Your task to perform on an android device: toggle sleep mode Image 0: 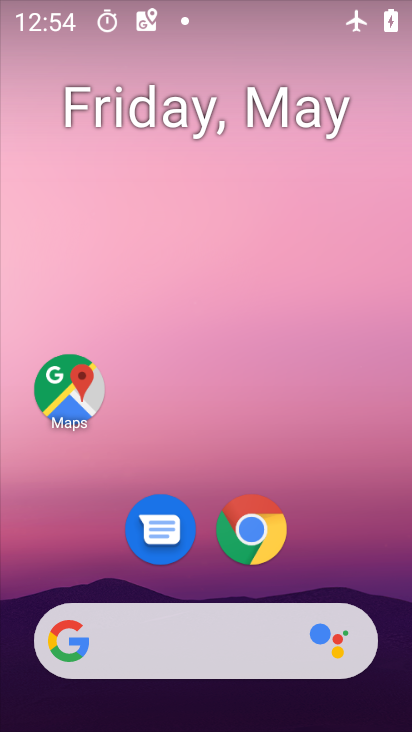
Step 0: drag from (258, 628) to (294, 163)
Your task to perform on an android device: toggle sleep mode Image 1: 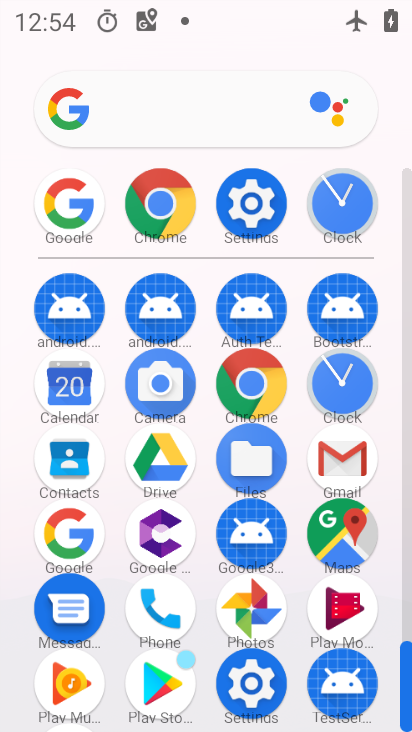
Step 1: click (263, 214)
Your task to perform on an android device: toggle sleep mode Image 2: 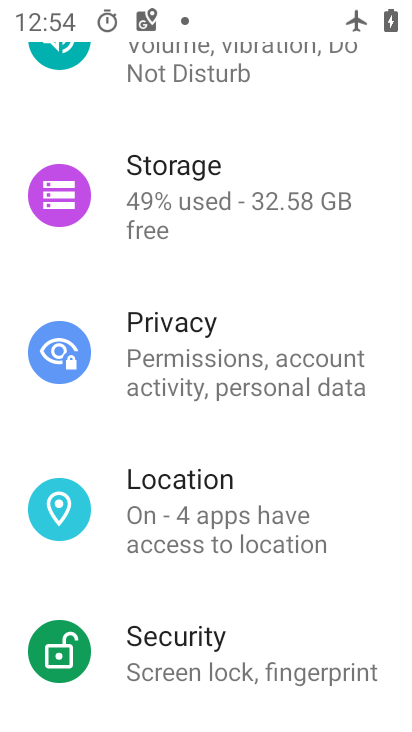
Step 2: drag from (127, 305) to (97, 694)
Your task to perform on an android device: toggle sleep mode Image 3: 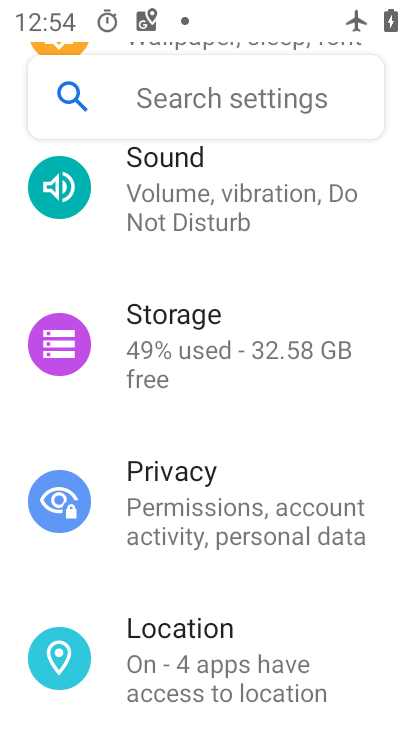
Step 3: drag from (190, 395) to (217, 730)
Your task to perform on an android device: toggle sleep mode Image 4: 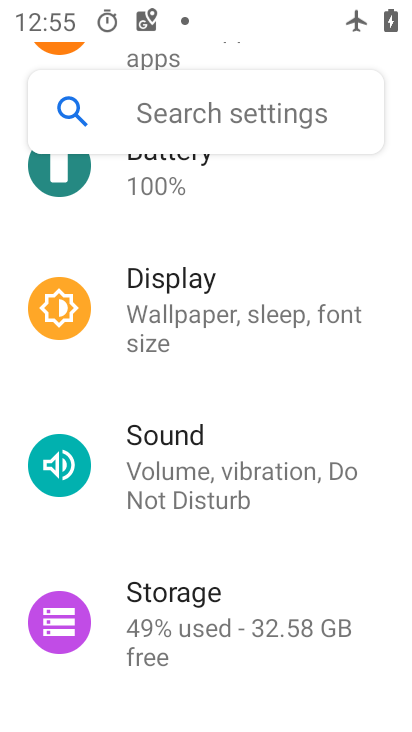
Step 4: drag from (283, 290) to (233, 725)
Your task to perform on an android device: toggle sleep mode Image 5: 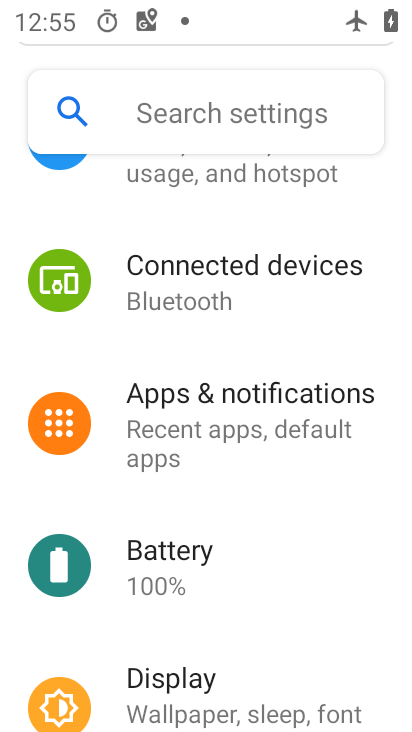
Step 5: click (202, 695)
Your task to perform on an android device: toggle sleep mode Image 6: 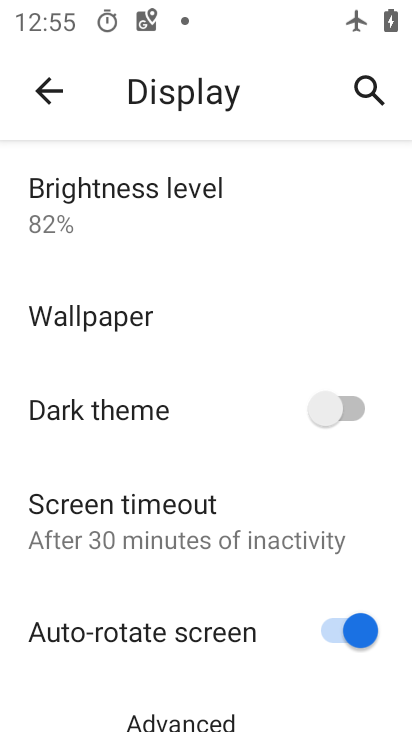
Step 6: task complete